Your task to perform on an android device: toggle location history Image 0: 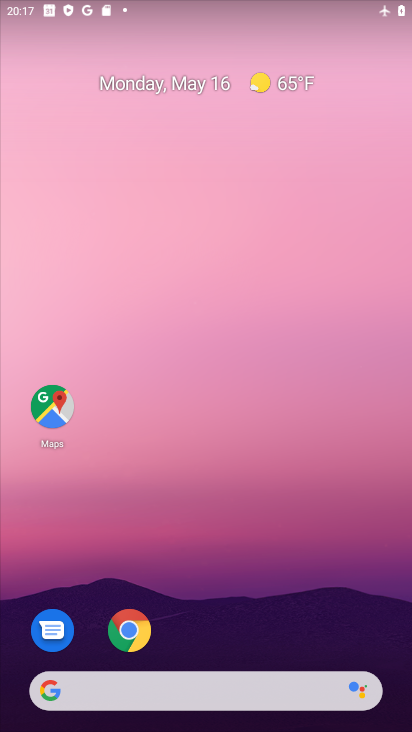
Step 0: drag from (197, 640) to (202, 293)
Your task to perform on an android device: toggle location history Image 1: 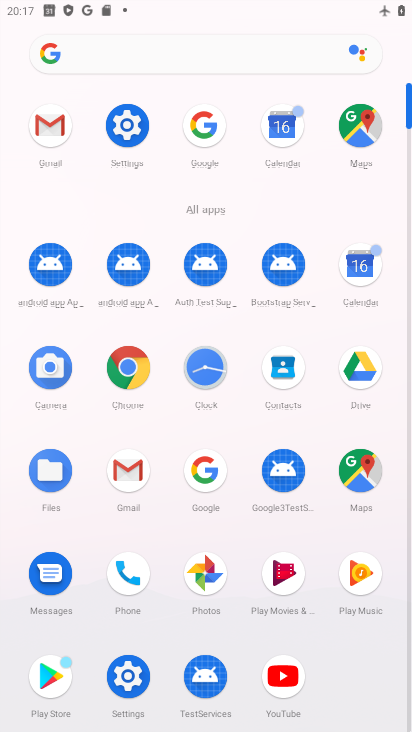
Step 1: click (121, 115)
Your task to perform on an android device: toggle location history Image 2: 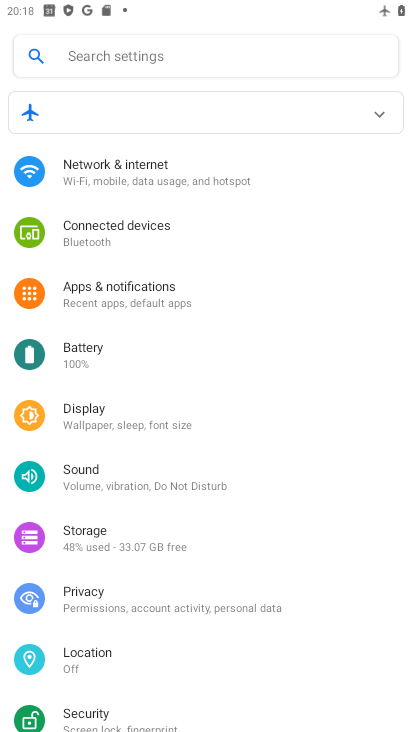
Step 2: drag from (151, 570) to (173, 368)
Your task to perform on an android device: toggle location history Image 3: 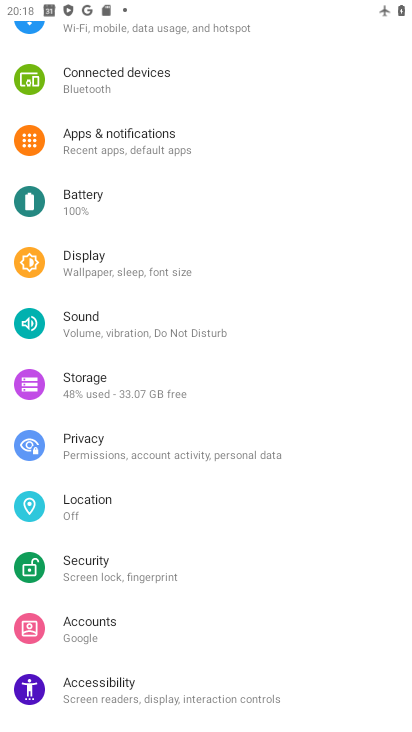
Step 3: click (105, 520)
Your task to perform on an android device: toggle location history Image 4: 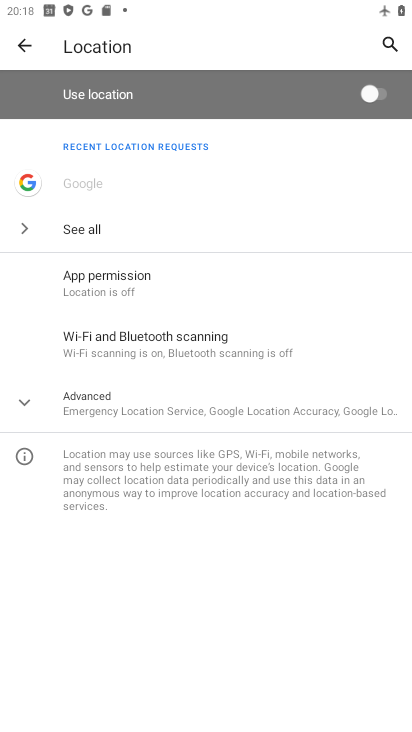
Step 4: click (110, 394)
Your task to perform on an android device: toggle location history Image 5: 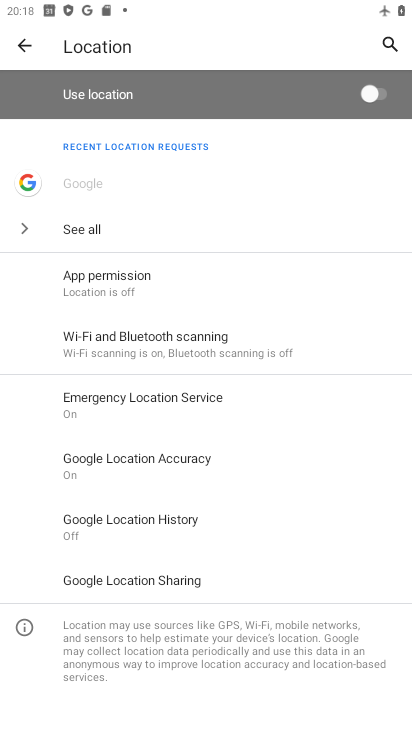
Step 5: click (190, 528)
Your task to perform on an android device: toggle location history Image 6: 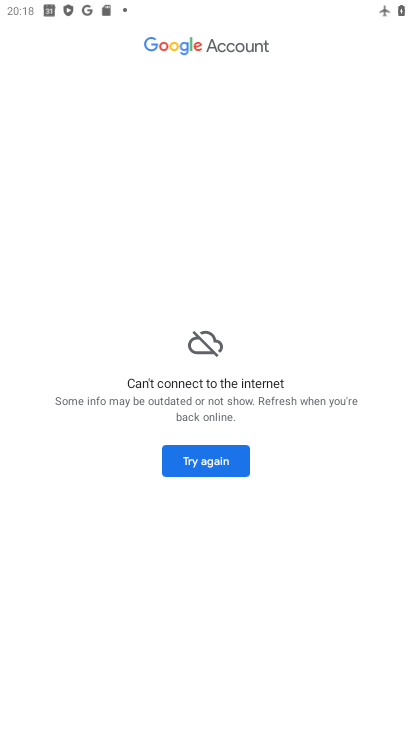
Step 6: task complete